Your task to perform on an android device: install app "Google Pay: Save, Pay, Manage" Image 0: 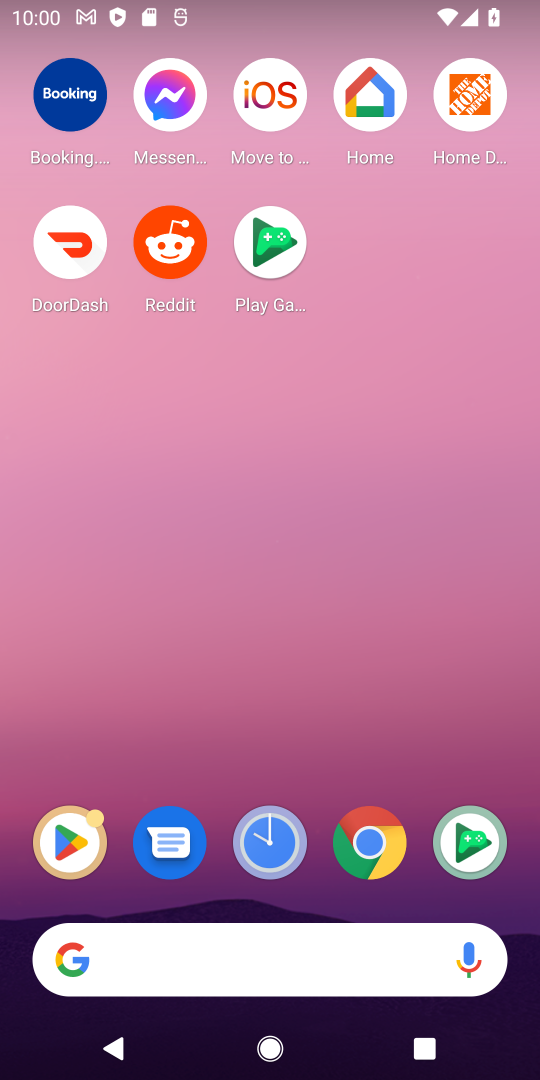
Step 0: click (77, 845)
Your task to perform on an android device: install app "Google Pay: Save, Pay, Manage" Image 1: 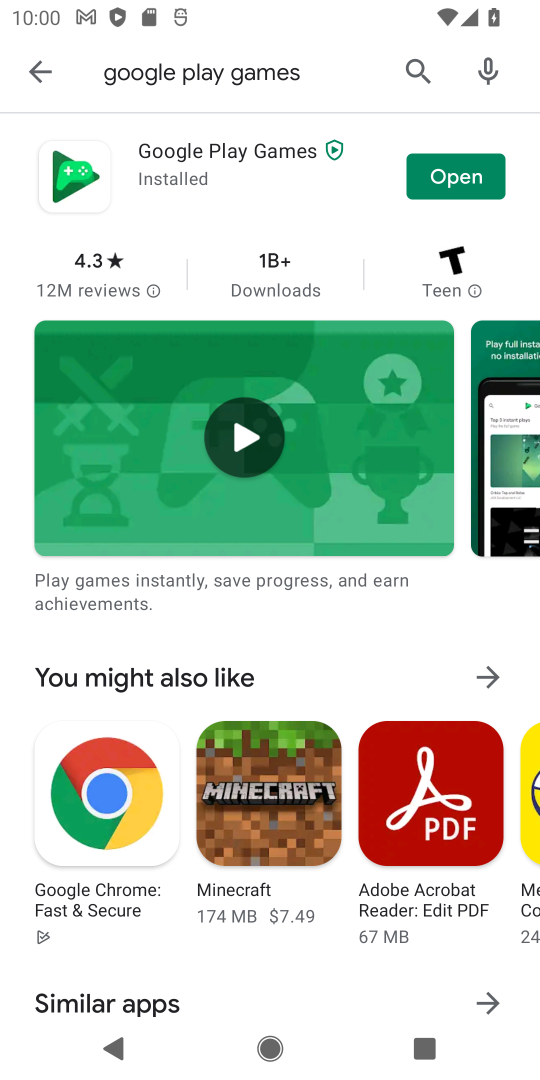
Step 1: click (417, 81)
Your task to perform on an android device: install app "Google Pay: Save, Pay, Manage" Image 2: 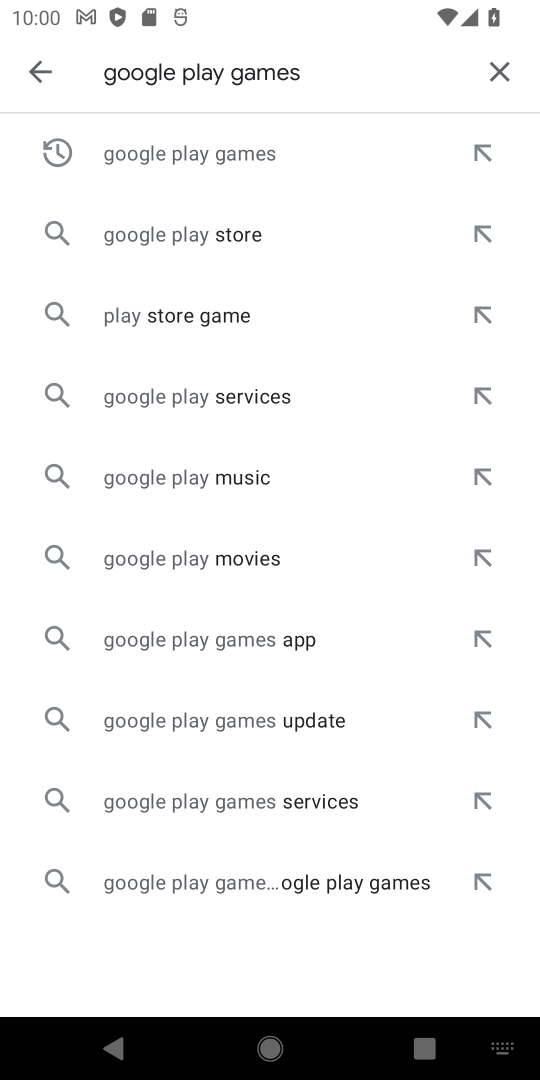
Step 2: click (494, 61)
Your task to perform on an android device: install app "Google Pay: Save, Pay, Manage" Image 3: 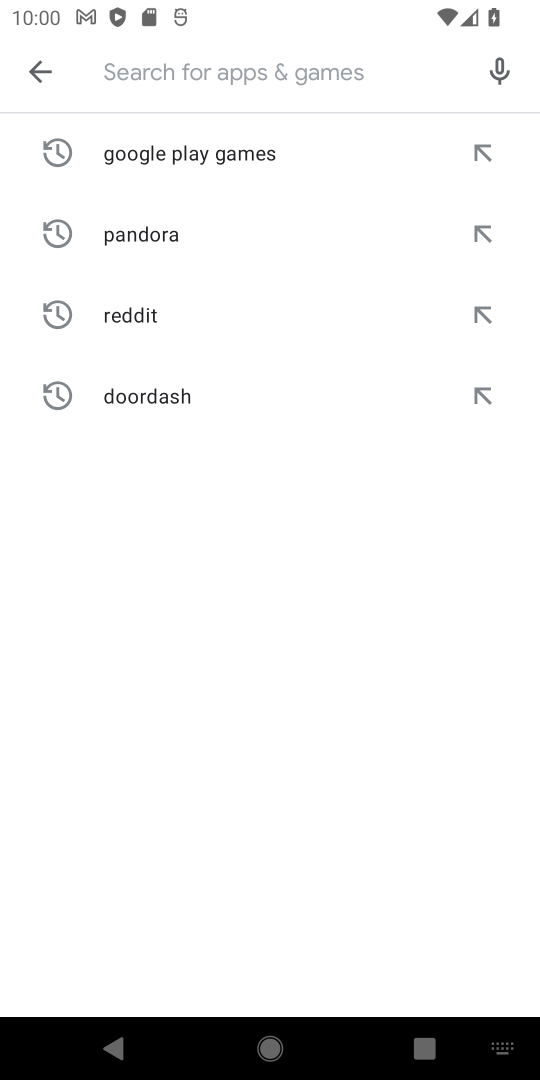
Step 3: type "google pay"
Your task to perform on an android device: install app "Google Pay: Save, Pay, Manage" Image 4: 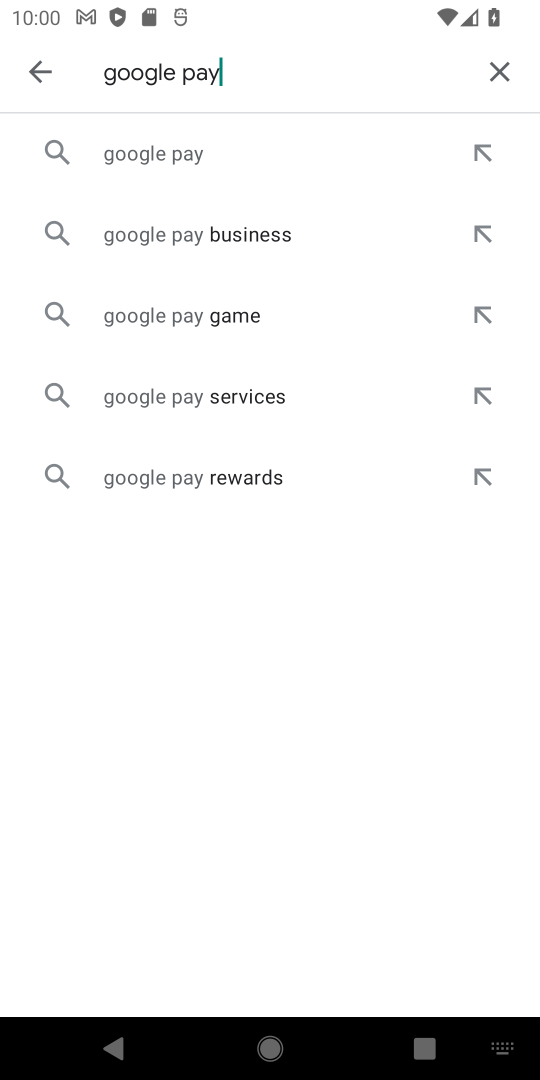
Step 4: click (157, 145)
Your task to perform on an android device: install app "Google Pay: Save, Pay, Manage" Image 5: 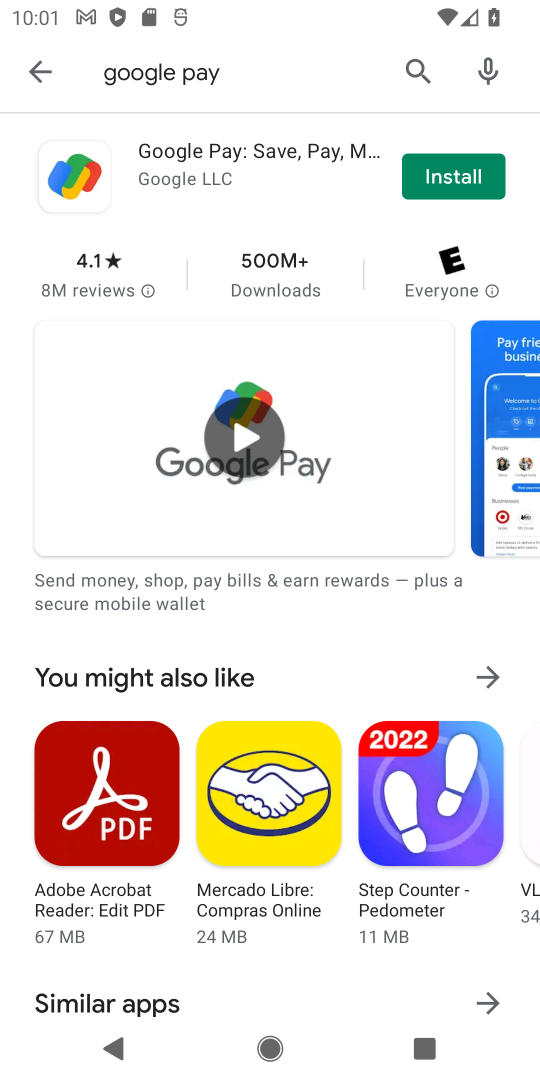
Step 5: click (466, 170)
Your task to perform on an android device: install app "Google Pay: Save, Pay, Manage" Image 6: 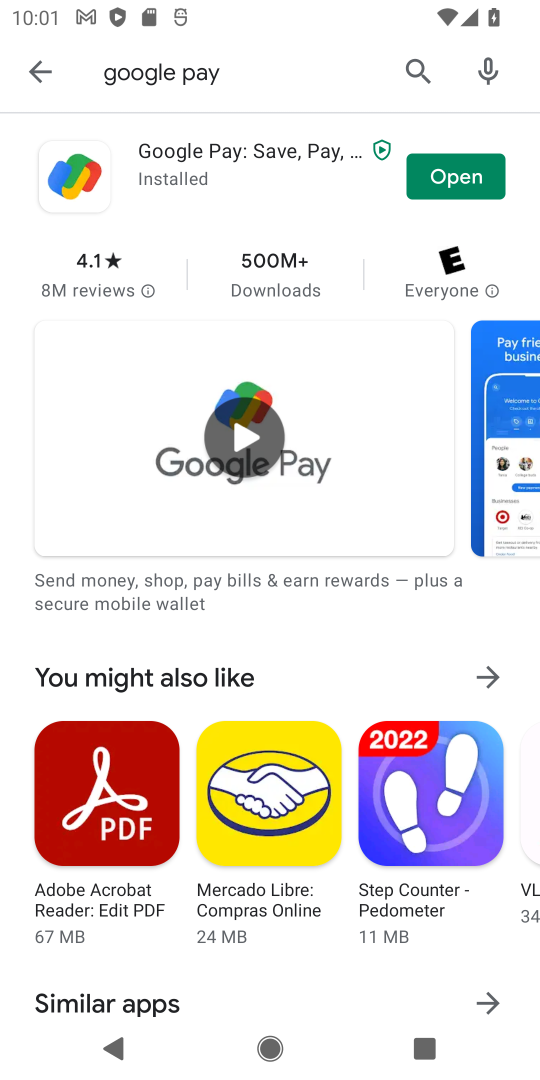
Step 6: task complete